Your task to perform on an android device: Open Yahoo.com Image 0: 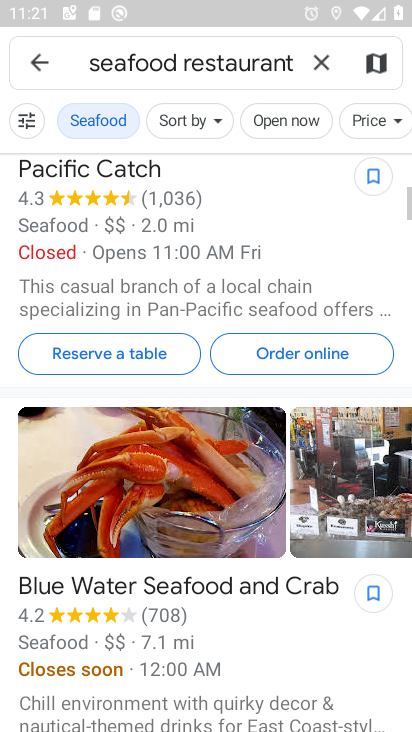
Step 0: press home button
Your task to perform on an android device: Open Yahoo.com Image 1: 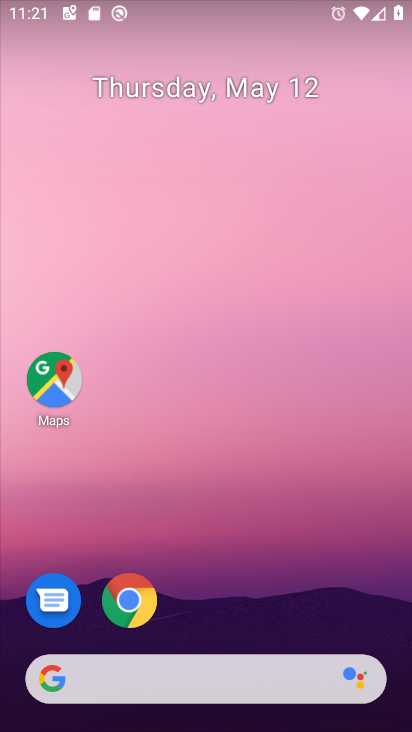
Step 1: click (112, 603)
Your task to perform on an android device: Open Yahoo.com Image 2: 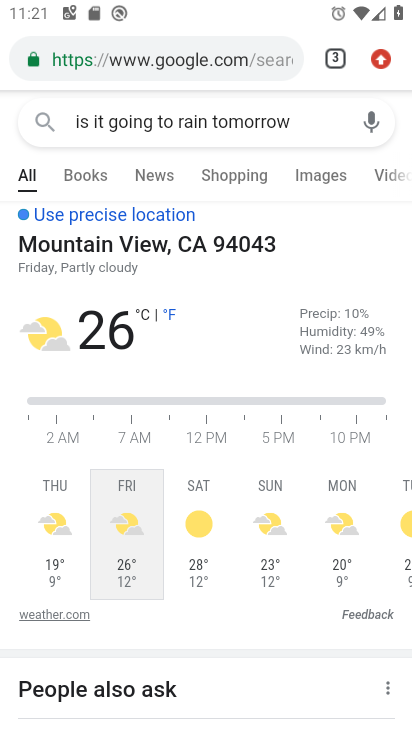
Step 2: click (337, 62)
Your task to perform on an android device: Open Yahoo.com Image 3: 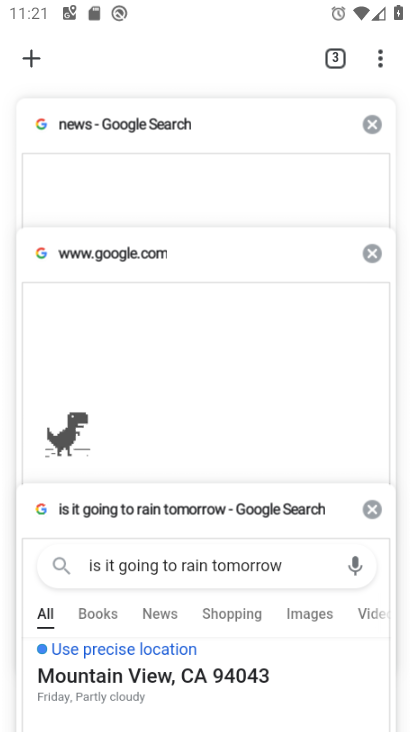
Step 3: click (34, 54)
Your task to perform on an android device: Open Yahoo.com Image 4: 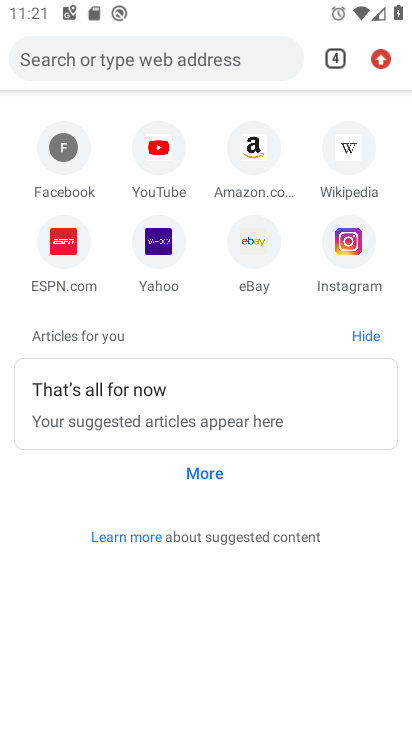
Step 4: click (155, 255)
Your task to perform on an android device: Open Yahoo.com Image 5: 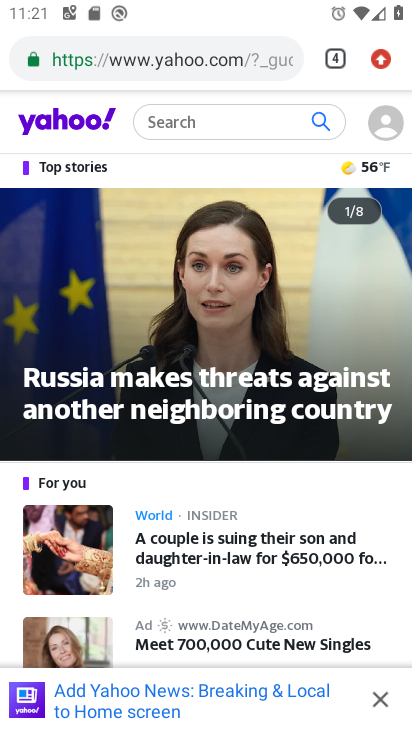
Step 5: task complete